Your task to perform on an android device: turn on wifi Image 0: 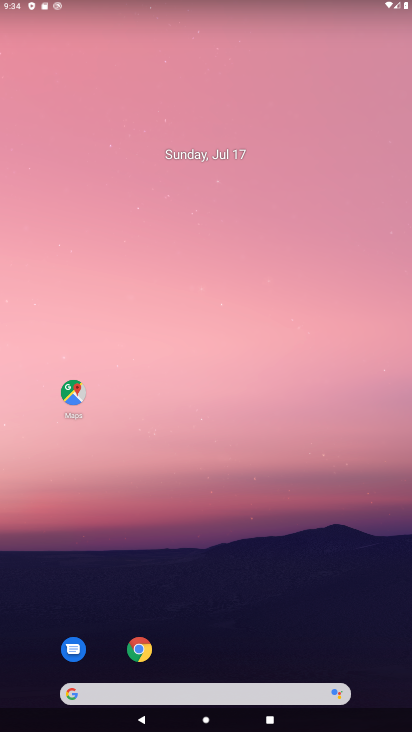
Step 0: click (174, 189)
Your task to perform on an android device: turn on wifi Image 1: 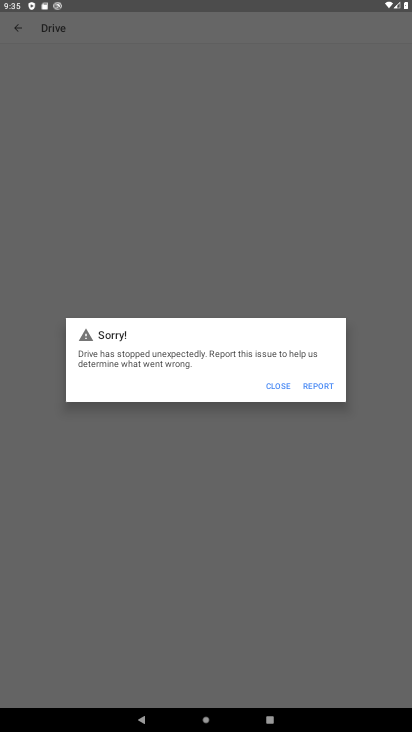
Step 1: press home button
Your task to perform on an android device: turn on wifi Image 2: 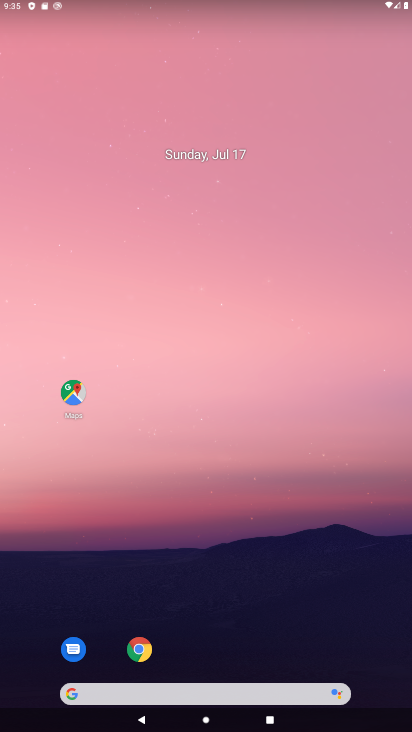
Step 2: drag from (55, 650) to (226, 0)
Your task to perform on an android device: turn on wifi Image 3: 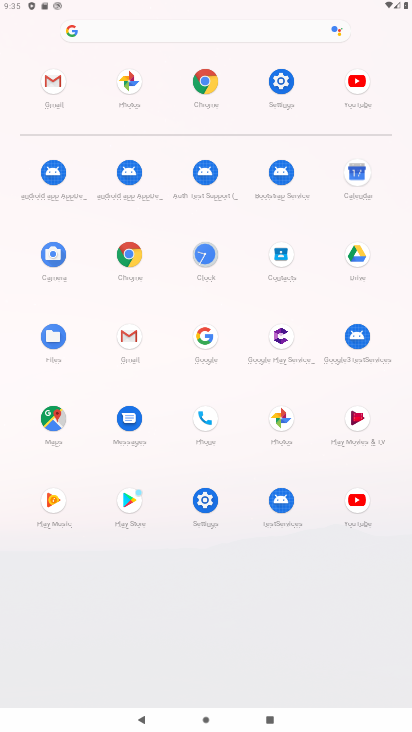
Step 3: click (202, 500)
Your task to perform on an android device: turn on wifi Image 4: 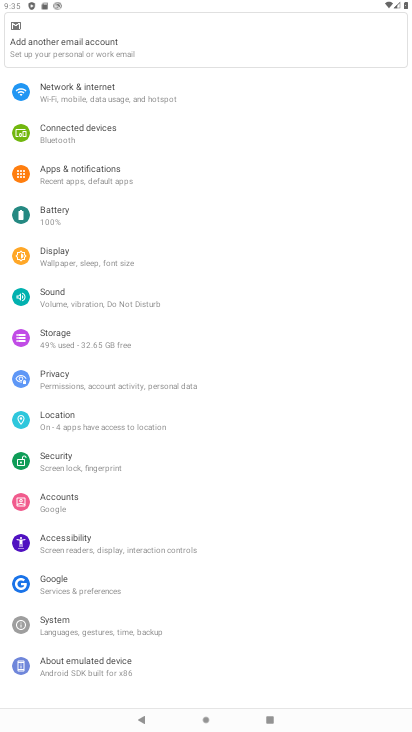
Step 4: click (102, 86)
Your task to perform on an android device: turn on wifi Image 5: 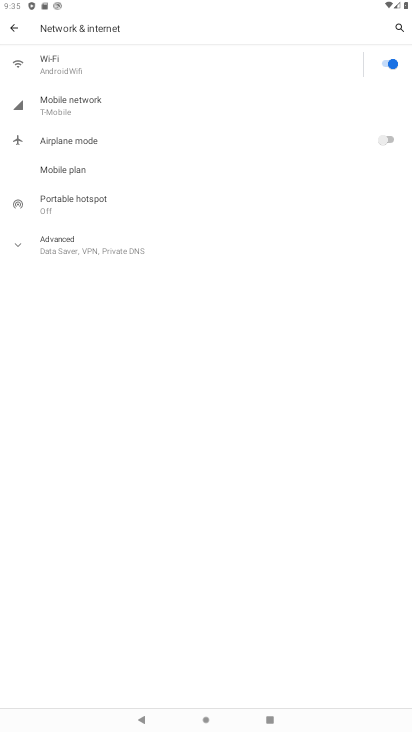
Step 5: task complete